Your task to perform on an android device: Open Chrome and go to settings Image 0: 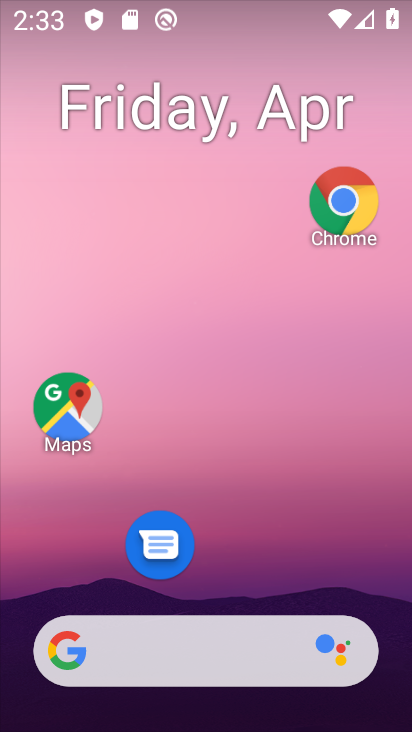
Step 0: click (355, 216)
Your task to perform on an android device: Open Chrome and go to settings Image 1: 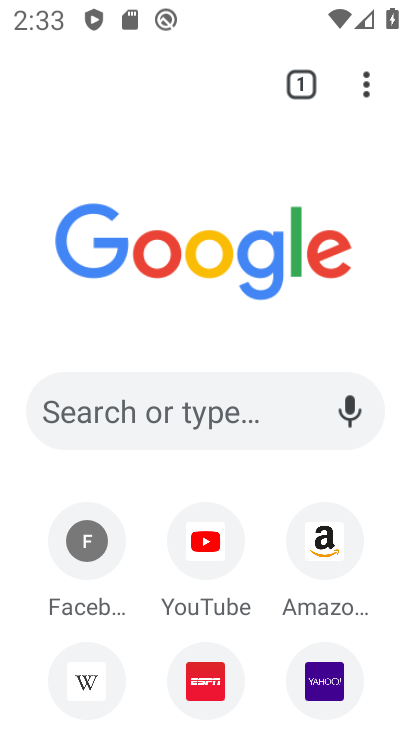
Step 1: click (369, 87)
Your task to perform on an android device: Open Chrome and go to settings Image 2: 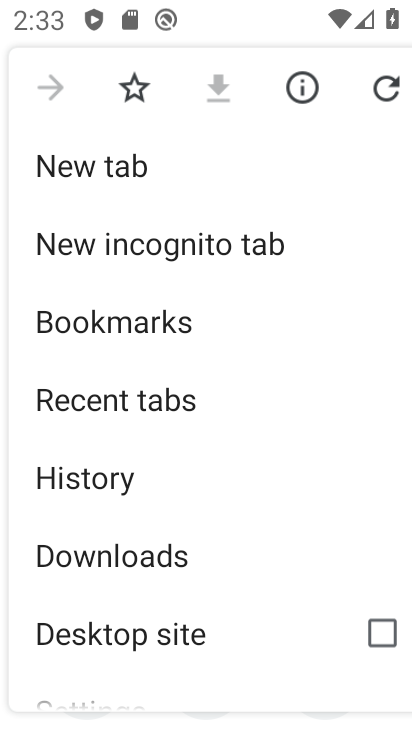
Step 2: drag from (129, 559) to (177, 333)
Your task to perform on an android device: Open Chrome and go to settings Image 3: 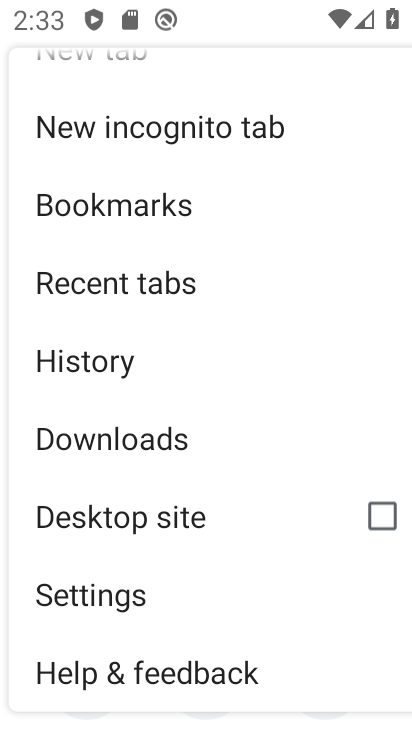
Step 3: click (114, 612)
Your task to perform on an android device: Open Chrome and go to settings Image 4: 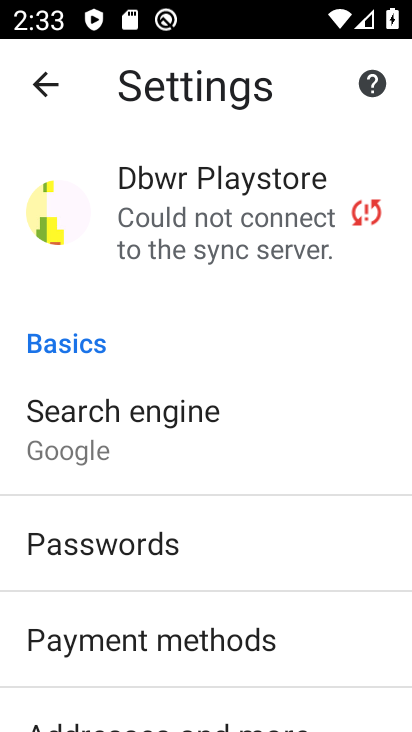
Step 4: task complete